Your task to perform on an android device: turn on location history Image 0: 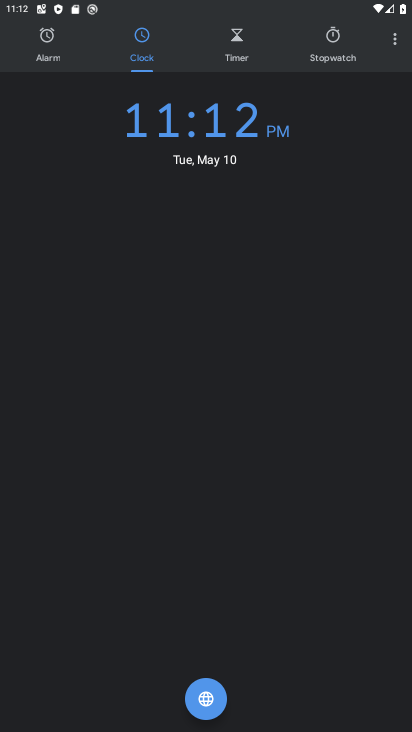
Step 0: press home button
Your task to perform on an android device: turn on location history Image 1: 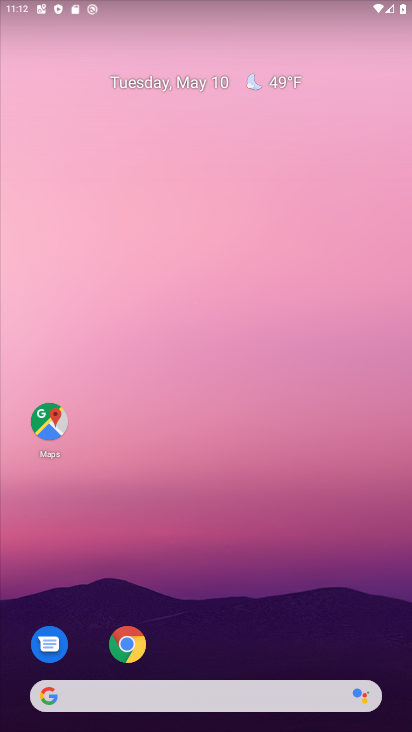
Step 1: drag from (238, 598) to (238, 160)
Your task to perform on an android device: turn on location history Image 2: 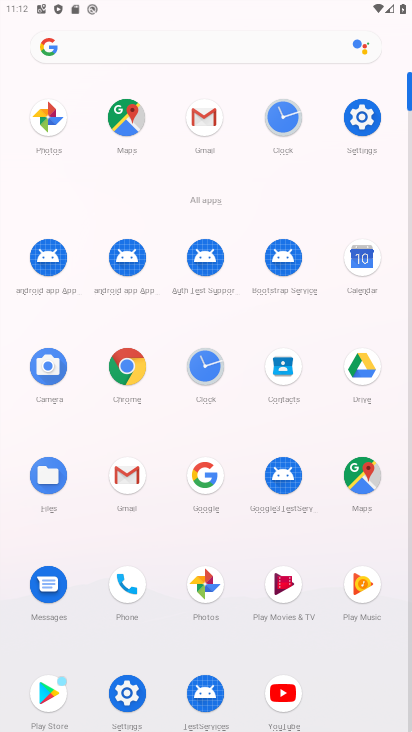
Step 2: click (364, 106)
Your task to perform on an android device: turn on location history Image 3: 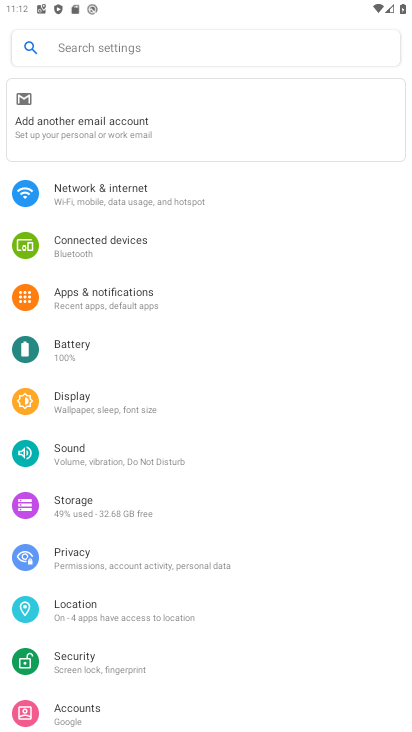
Step 3: click (99, 598)
Your task to perform on an android device: turn on location history Image 4: 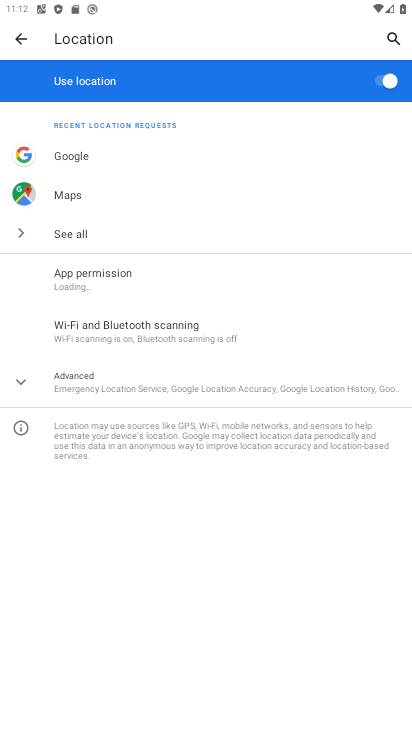
Step 4: click (144, 370)
Your task to perform on an android device: turn on location history Image 5: 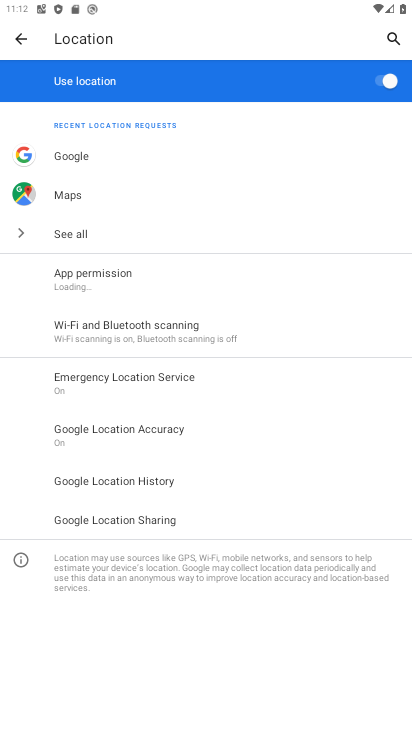
Step 5: drag from (174, 392) to (192, 338)
Your task to perform on an android device: turn on location history Image 6: 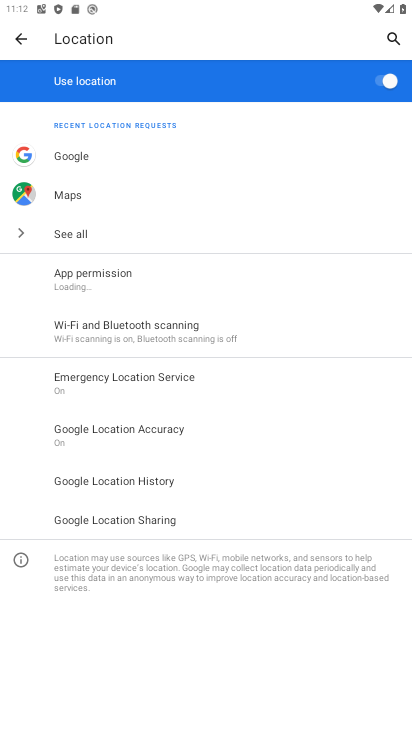
Step 6: click (183, 488)
Your task to perform on an android device: turn on location history Image 7: 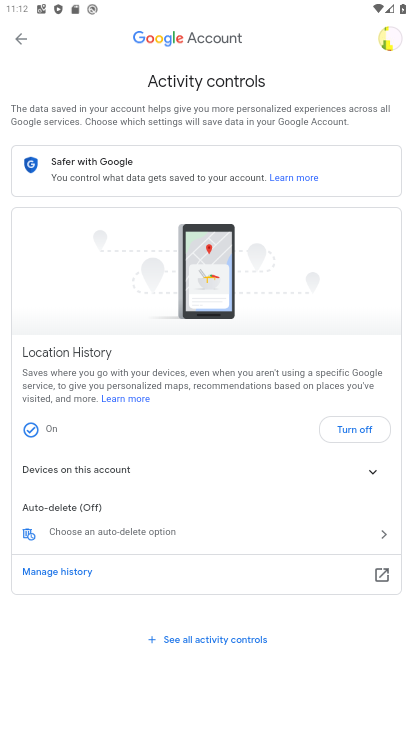
Step 7: task complete